Your task to perform on an android device: move an email to a new category in the gmail app Image 0: 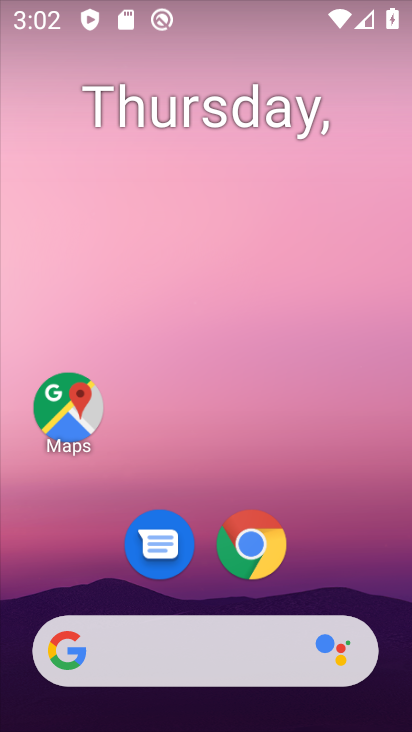
Step 0: drag from (322, 578) to (311, 0)
Your task to perform on an android device: move an email to a new category in the gmail app Image 1: 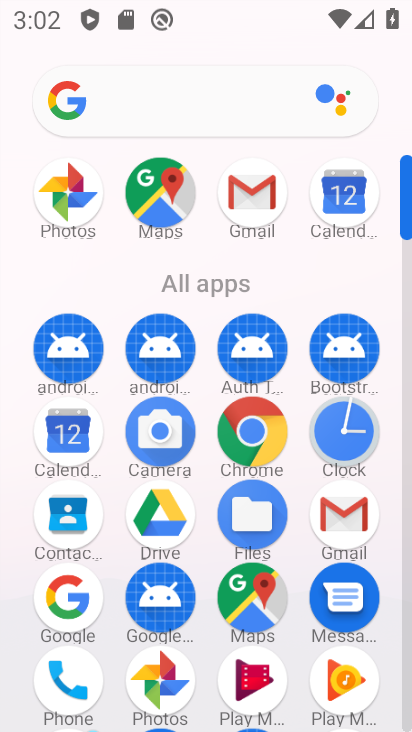
Step 1: click (330, 525)
Your task to perform on an android device: move an email to a new category in the gmail app Image 2: 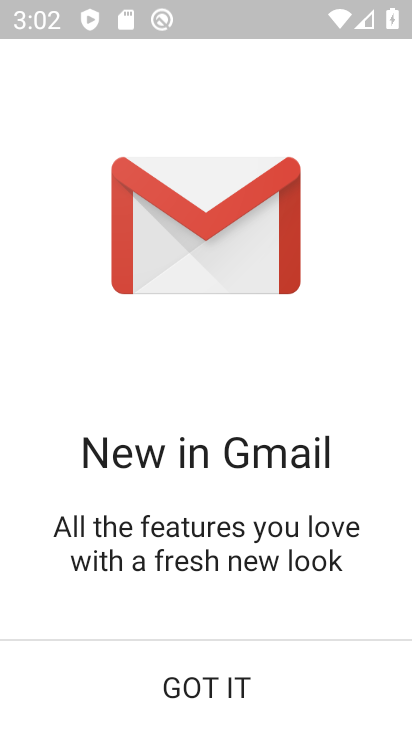
Step 2: click (228, 693)
Your task to perform on an android device: move an email to a new category in the gmail app Image 3: 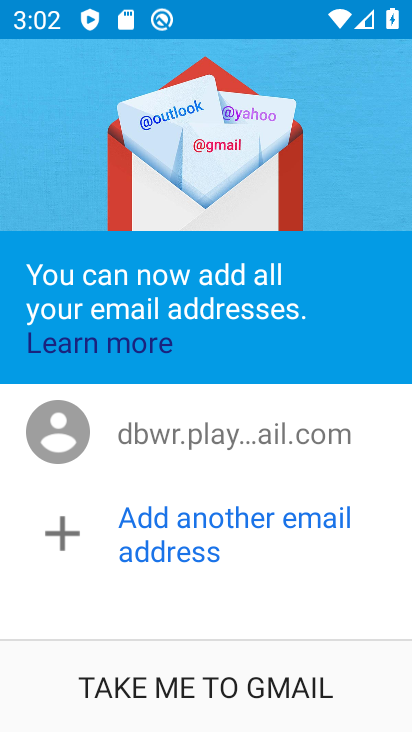
Step 3: click (193, 687)
Your task to perform on an android device: move an email to a new category in the gmail app Image 4: 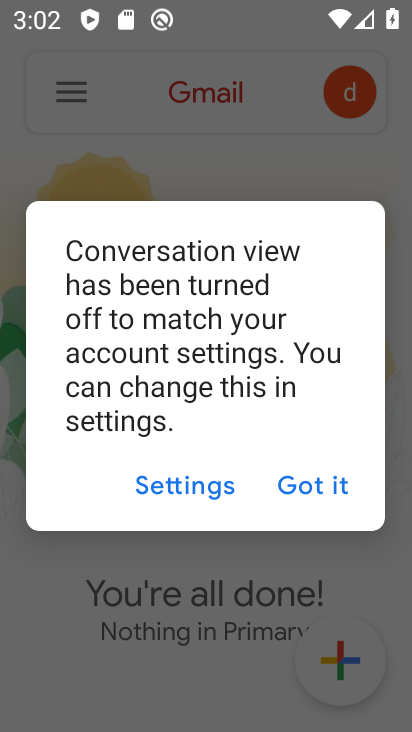
Step 4: click (276, 480)
Your task to perform on an android device: move an email to a new category in the gmail app Image 5: 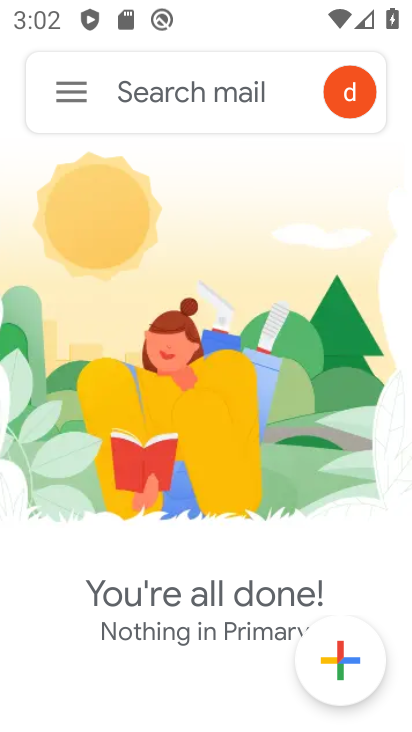
Step 5: click (73, 100)
Your task to perform on an android device: move an email to a new category in the gmail app Image 6: 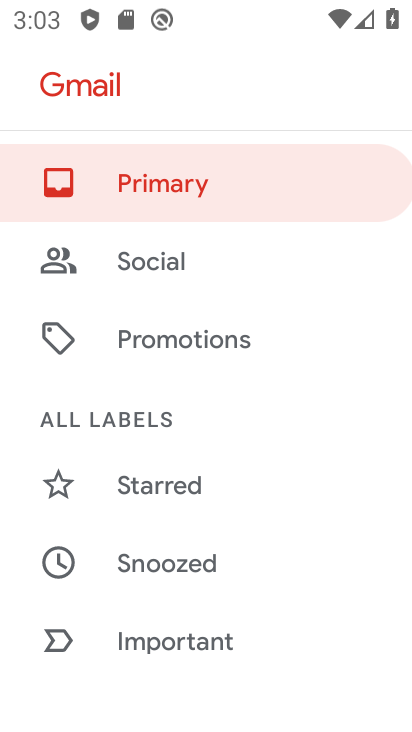
Step 6: drag from (176, 587) to (176, 108)
Your task to perform on an android device: move an email to a new category in the gmail app Image 7: 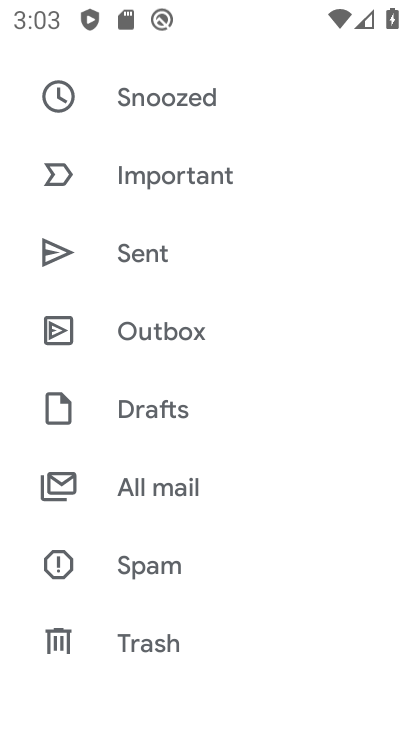
Step 7: click (151, 476)
Your task to perform on an android device: move an email to a new category in the gmail app Image 8: 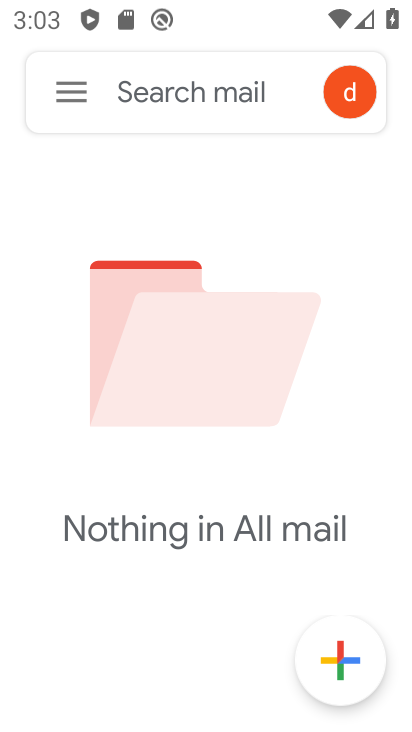
Step 8: task complete